Your task to perform on an android device: turn off airplane mode Image 0: 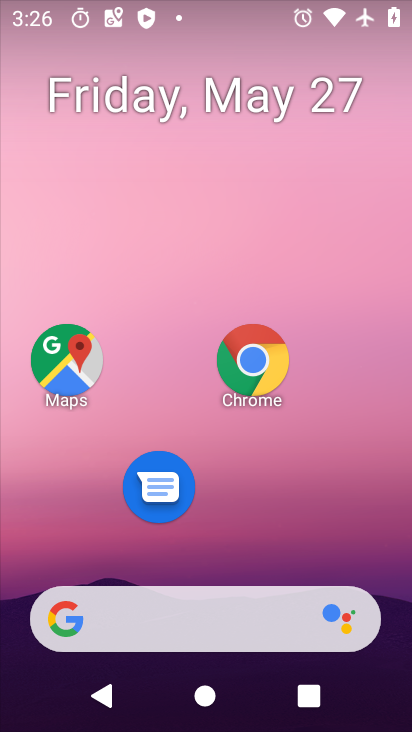
Step 0: drag from (258, 484) to (300, 47)
Your task to perform on an android device: turn off airplane mode Image 1: 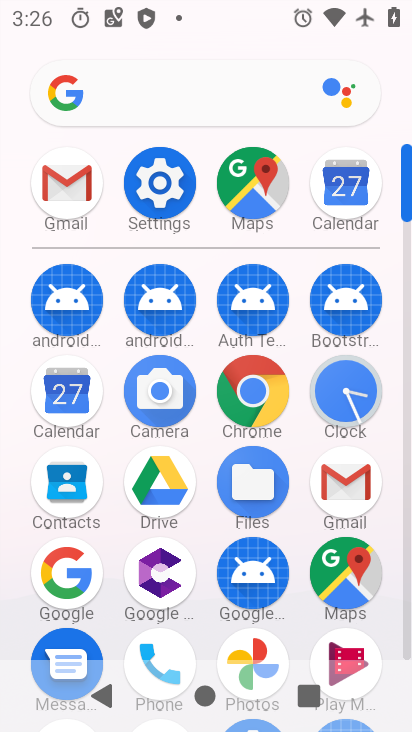
Step 1: click (159, 184)
Your task to perform on an android device: turn off airplane mode Image 2: 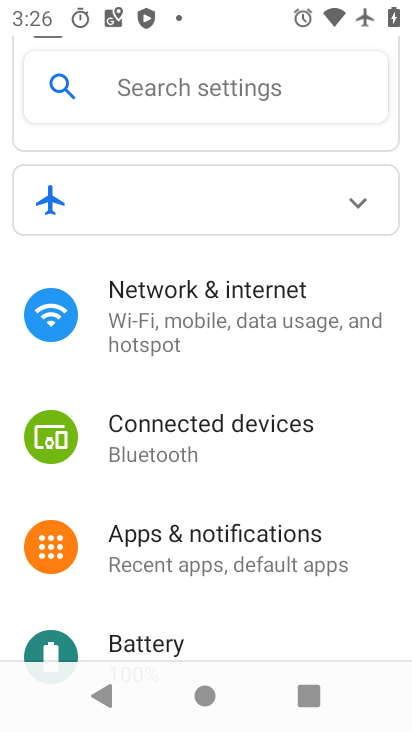
Step 2: click (209, 316)
Your task to perform on an android device: turn off airplane mode Image 3: 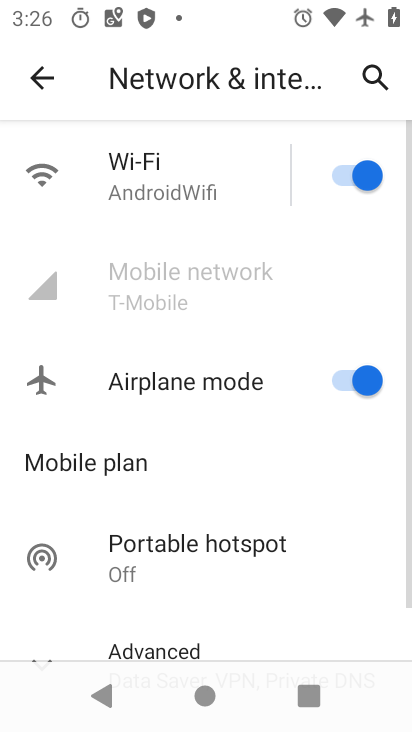
Step 3: click (328, 380)
Your task to perform on an android device: turn off airplane mode Image 4: 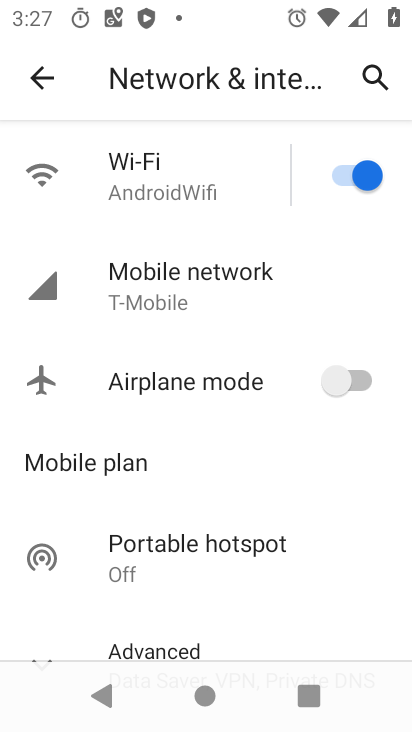
Step 4: task complete